Your task to perform on an android device: turn on sleep mode Image 0: 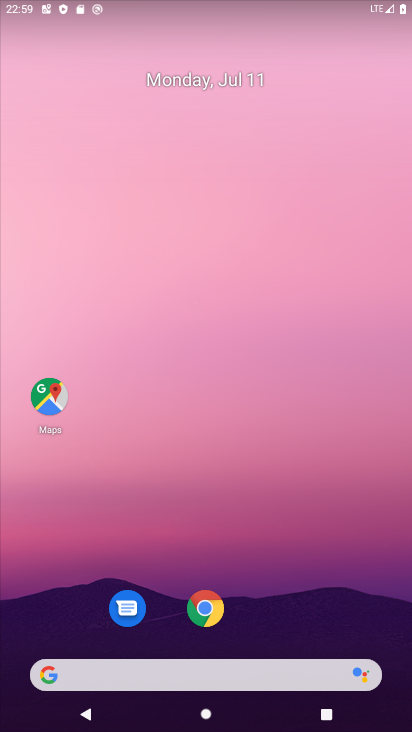
Step 0: drag from (36, 726) to (271, 8)
Your task to perform on an android device: turn on sleep mode Image 1: 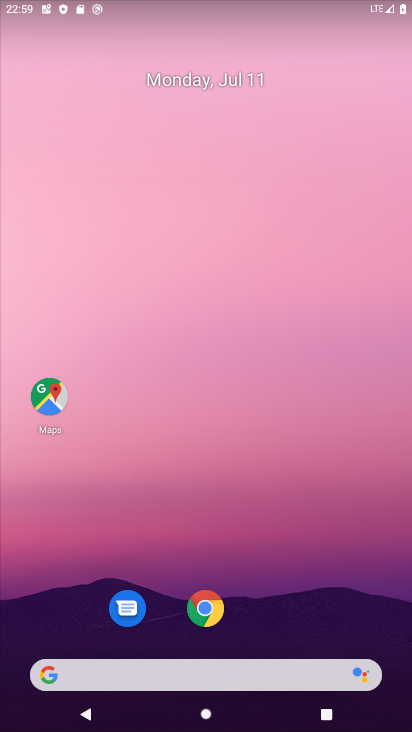
Step 1: drag from (21, 707) to (203, 15)
Your task to perform on an android device: turn on sleep mode Image 2: 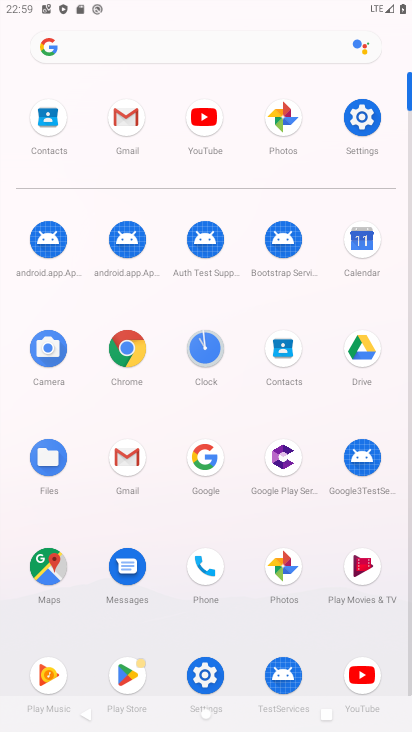
Step 2: click (207, 671)
Your task to perform on an android device: turn on sleep mode Image 3: 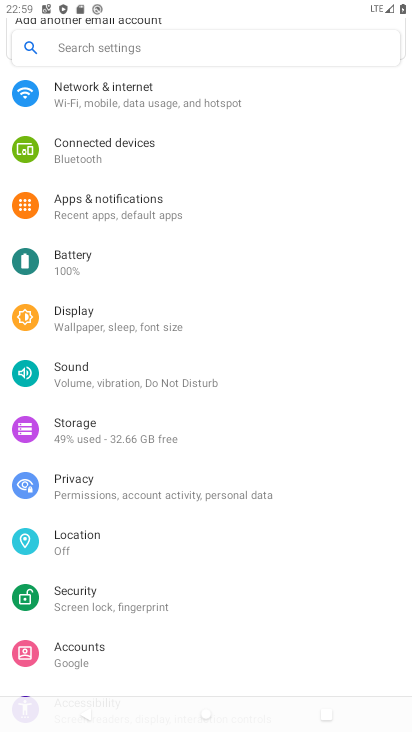
Step 3: click (110, 324)
Your task to perform on an android device: turn on sleep mode Image 4: 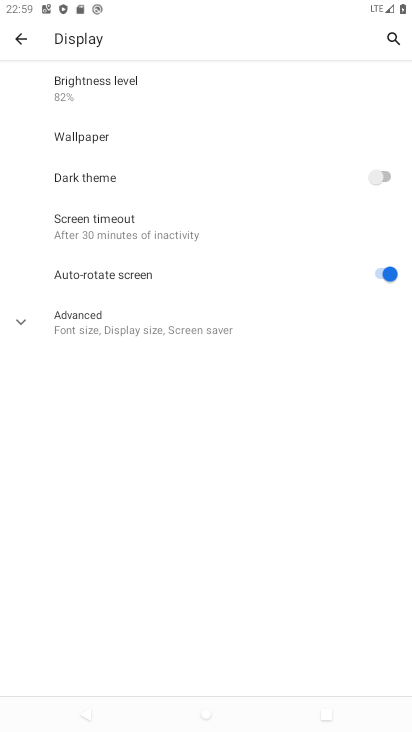
Step 4: click (67, 324)
Your task to perform on an android device: turn on sleep mode Image 5: 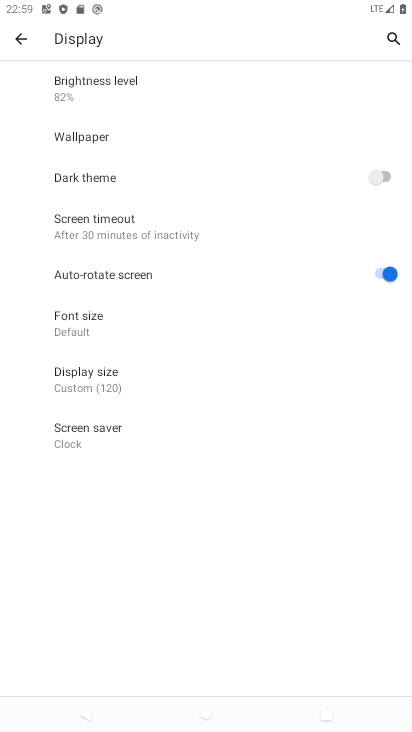
Step 5: click (15, 34)
Your task to perform on an android device: turn on sleep mode Image 6: 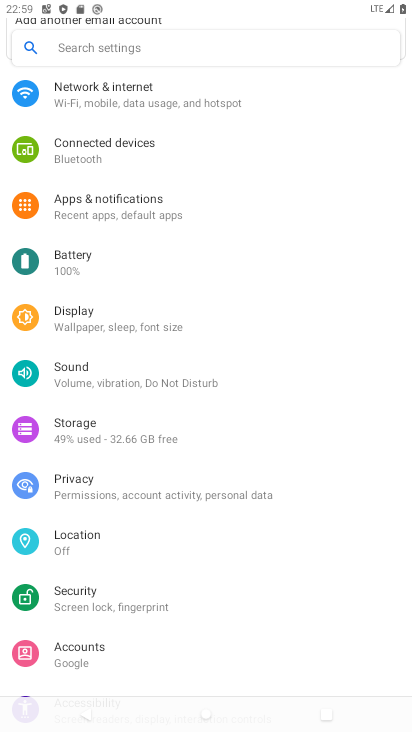
Step 6: task complete